Your task to perform on an android device: Do I have any events today? Image 0: 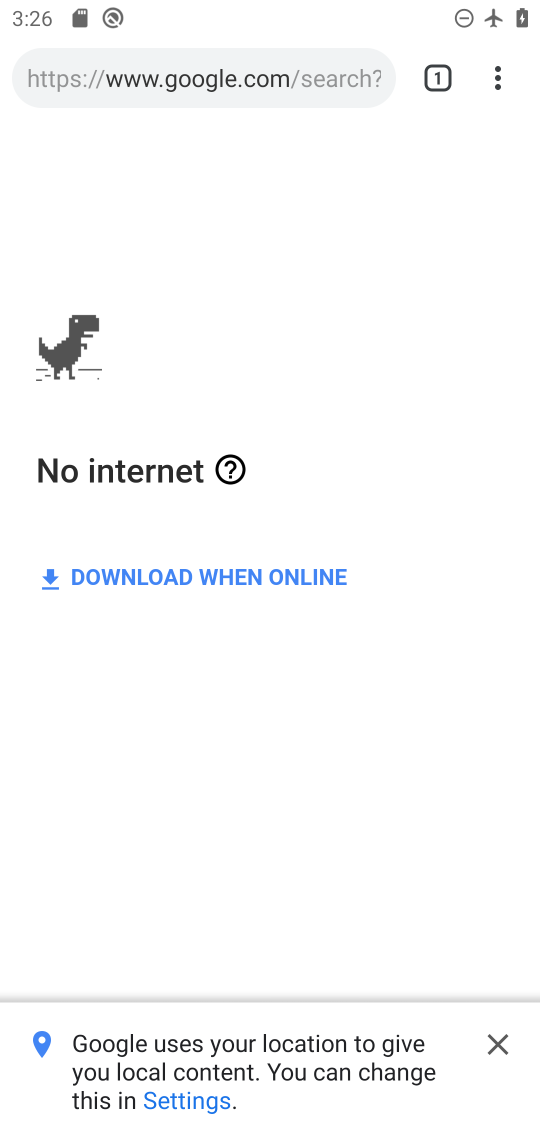
Step 0: press home button
Your task to perform on an android device: Do I have any events today? Image 1: 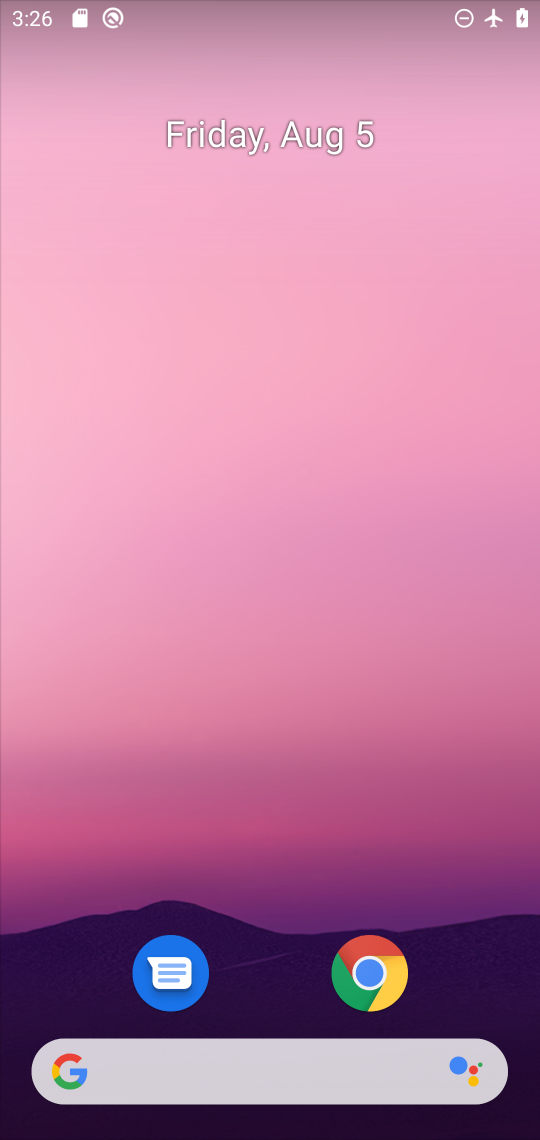
Step 1: drag from (292, 996) to (237, 71)
Your task to perform on an android device: Do I have any events today? Image 2: 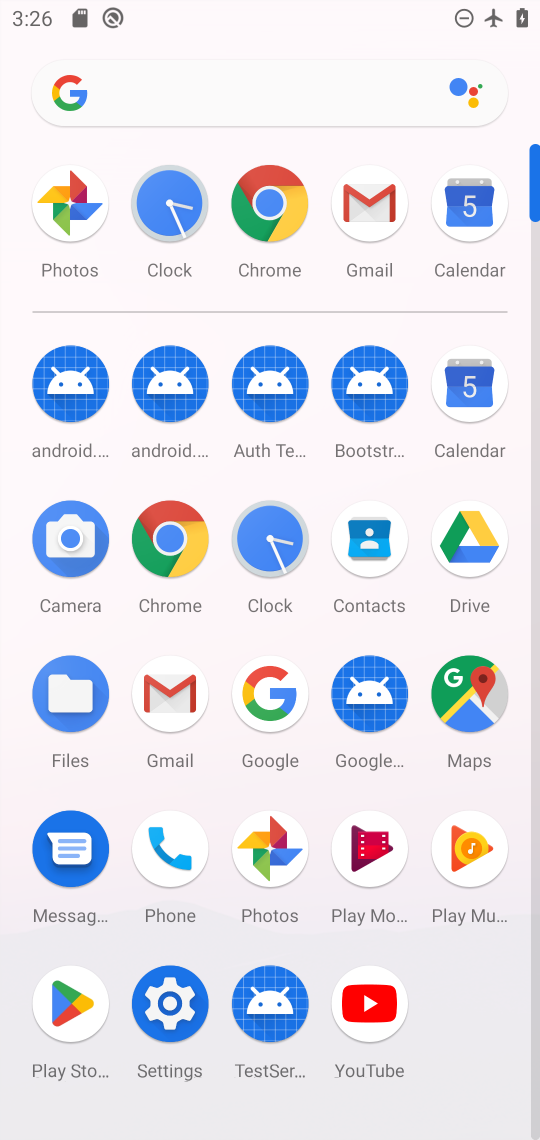
Step 2: click (492, 372)
Your task to perform on an android device: Do I have any events today? Image 3: 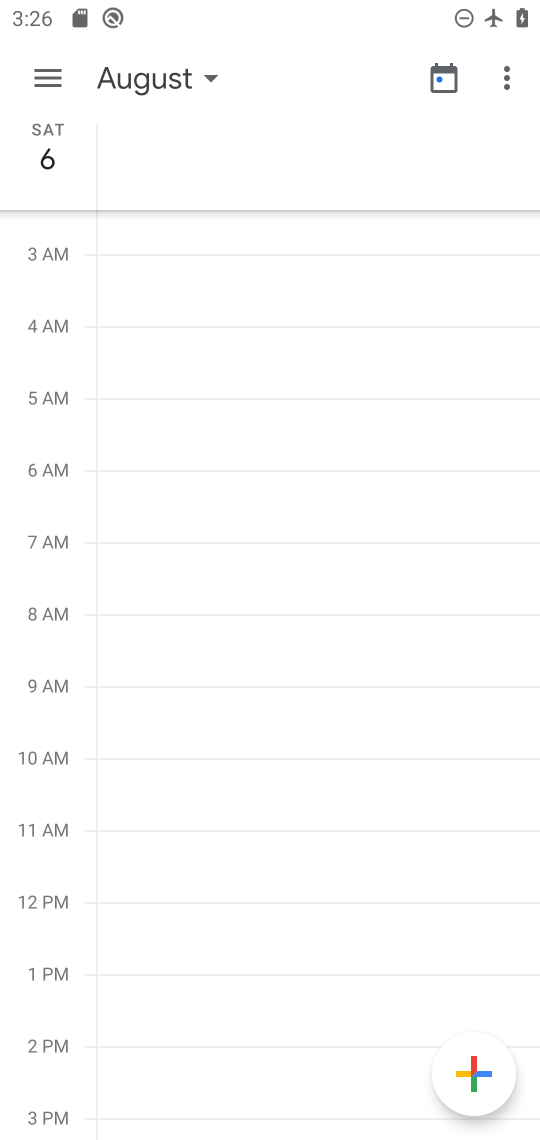
Step 3: click (424, 68)
Your task to perform on an android device: Do I have any events today? Image 4: 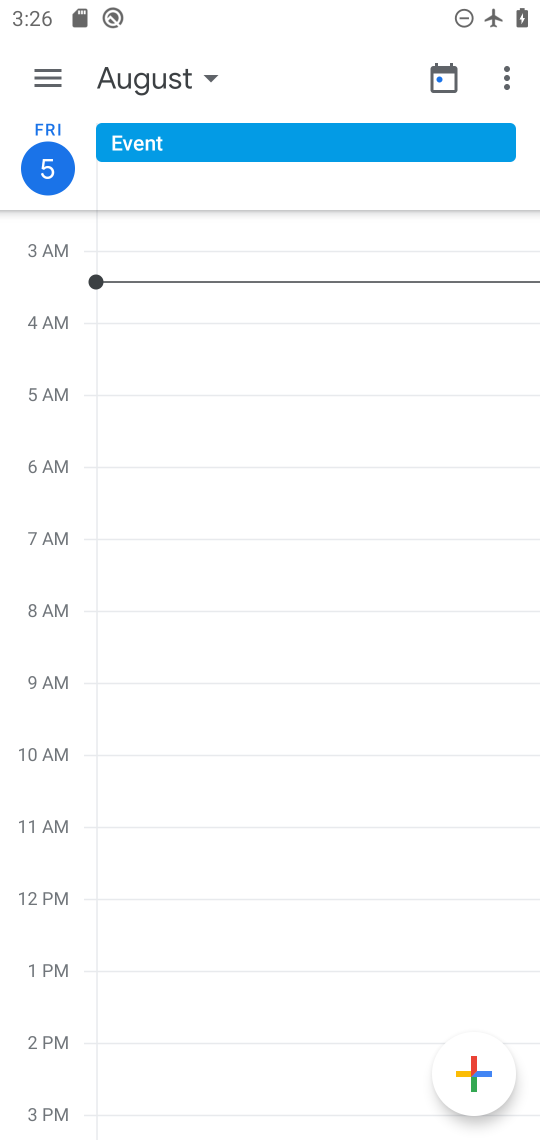
Step 4: click (62, 174)
Your task to perform on an android device: Do I have any events today? Image 5: 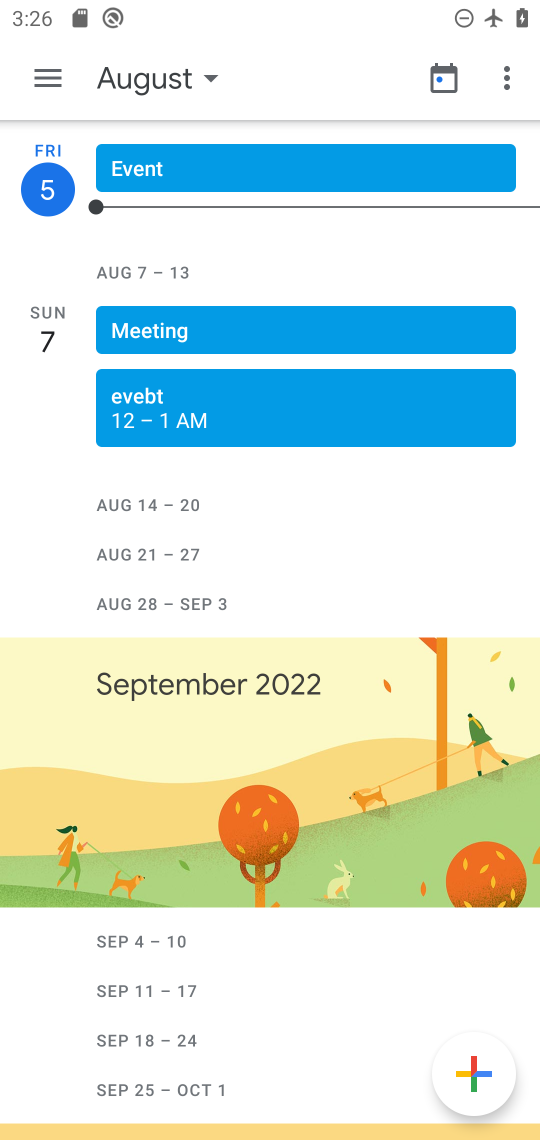
Step 5: task complete